Your task to perform on an android device: Go to calendar. Show me events next week Image 0: 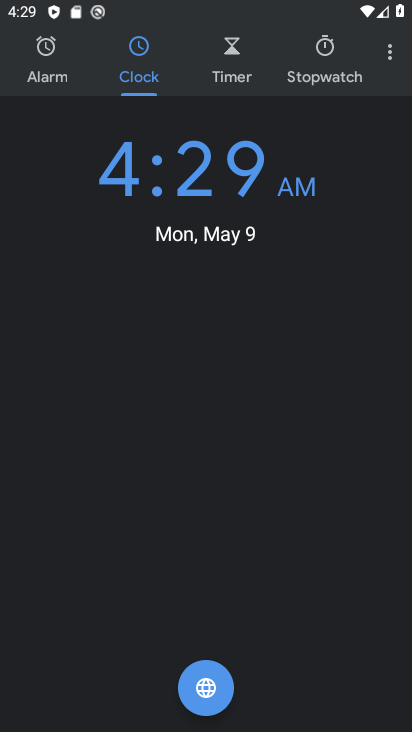
Step 0: press home button
Your task to perform on an android device: Go to calendar. Show me events next week Image 1: 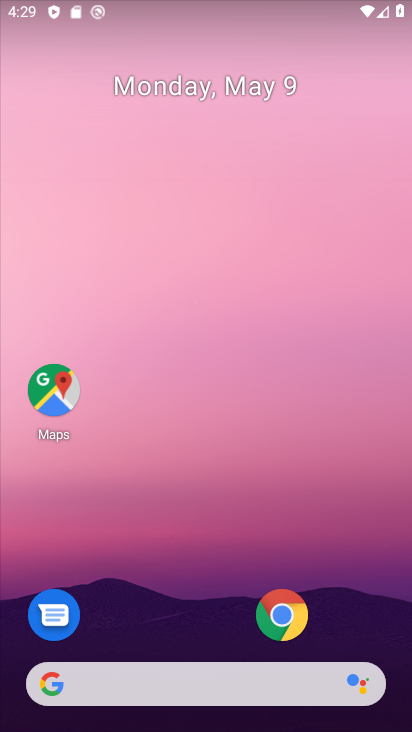
Step 1: click (283, 606)
Your task to perform on an android device: Go to calendar. Show me events next week Image 2: 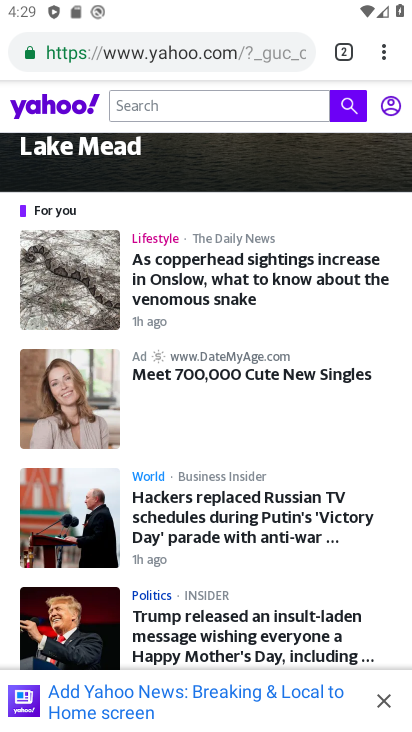
Step 2: press home button
Your task to perform on an android device: Go to calendar. Show me events next week Image 3: 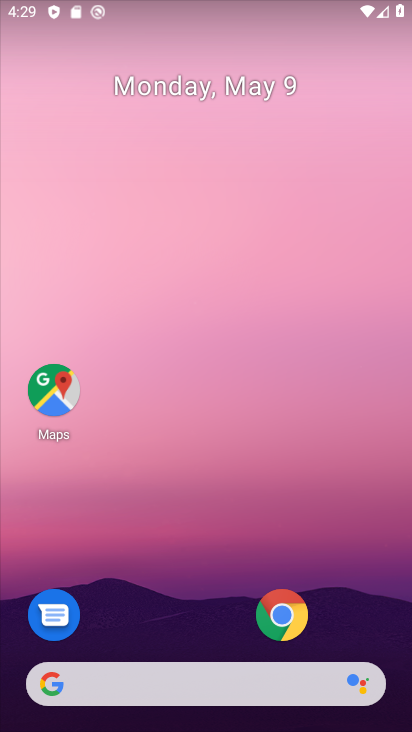
Step 3: drag from (169, 654) to (166, 329)
Your task to perform on an android device: Go to calendar. Show me events next week Image 4: 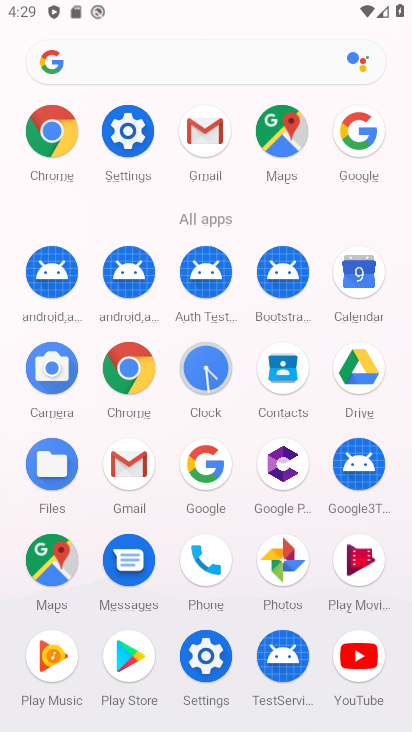
Step 4: click (353, 272)
Your task to perform on an android device: Go to calendar. Show me events next week Image 5: 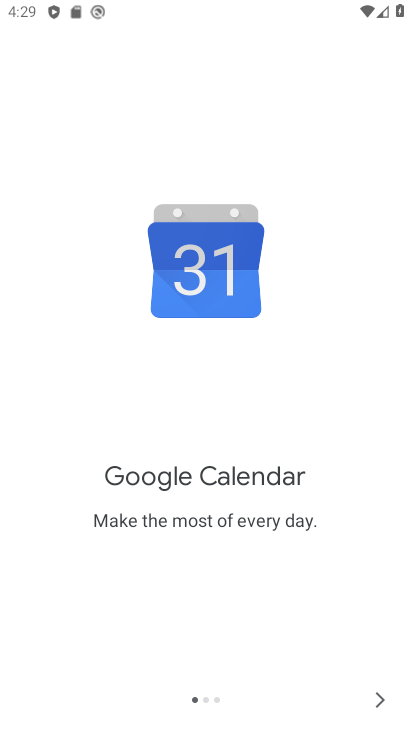
Step 5: click (369, 699)
Your task to perform on an android device: Go to calendar. Show me events next week Image 6: 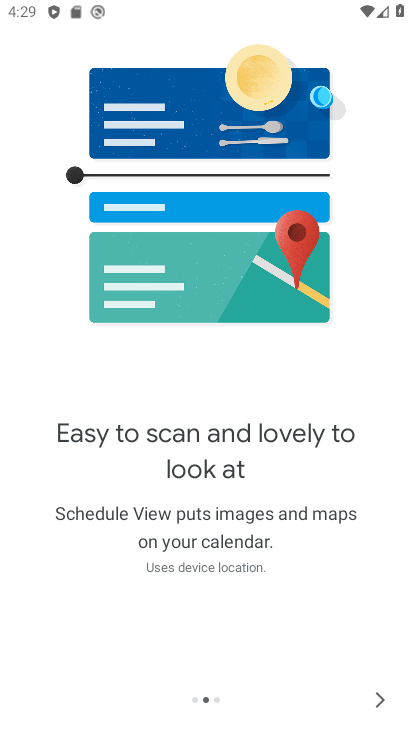
Step 6: click (369, 699)
Your task to perform on an android device: Go to calendar. Show me events next week Image 7: 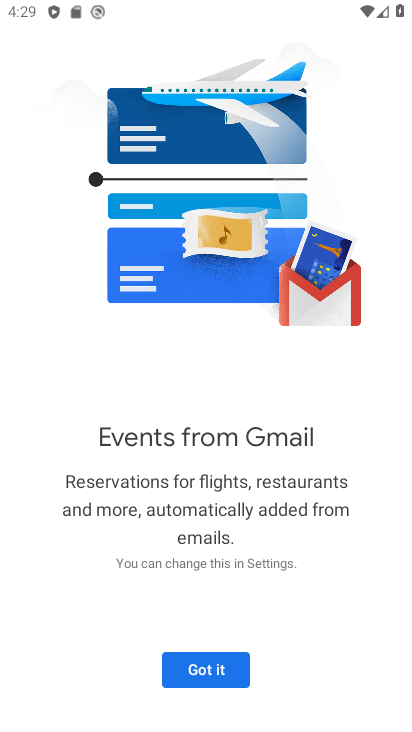
Step 7: click (232, 665)
Your task to perform on an android device: Go to calendar. Show me events next week Image 8: 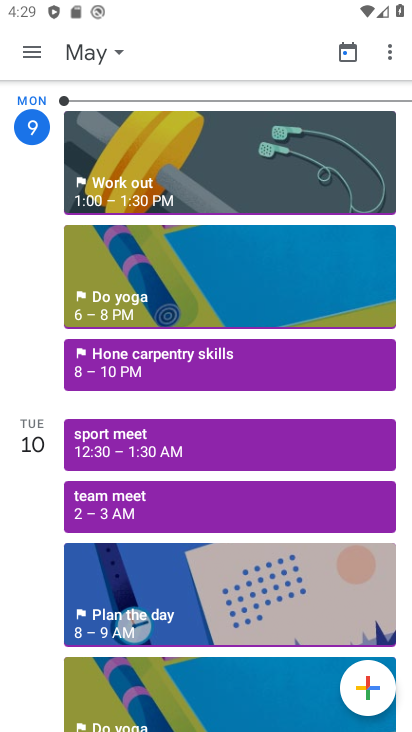
Step 8: click (79, 49)
Your task to perform on an android device: Go to calendar. Show me events next week Image 9: 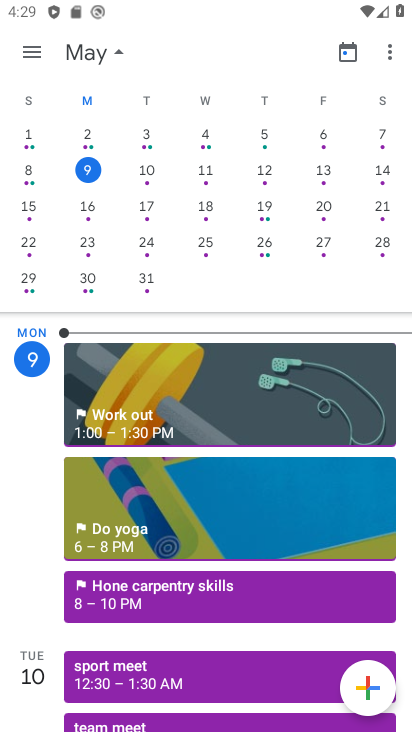
Step 9: click (147, 211)
Your task to perform on an android device: Go to calendar. Show me events next week Image 10: 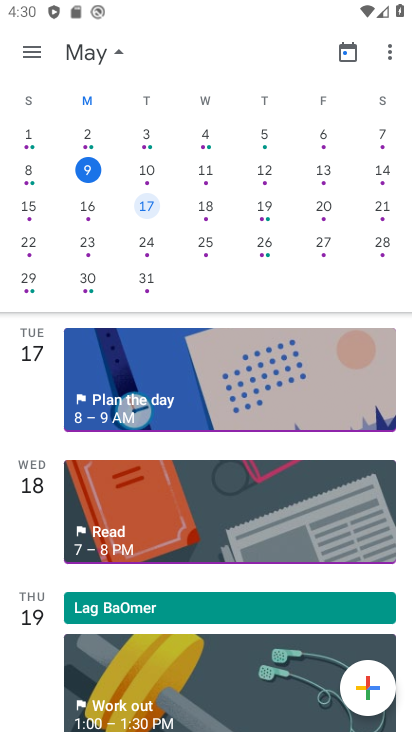
Step 10: click (108, 394)
Your task to perform on an android device: Go to calendar. Show me events next week Image 11: 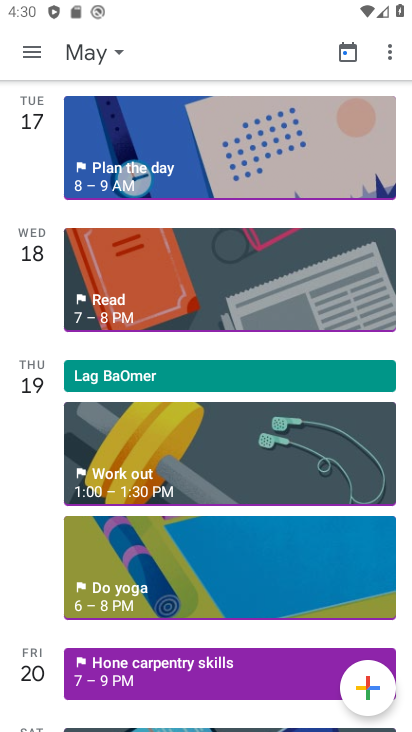
Step 11: click (156, 471)
Your task to perform on an android device: Go to calendar. Show me events next week Image 12: 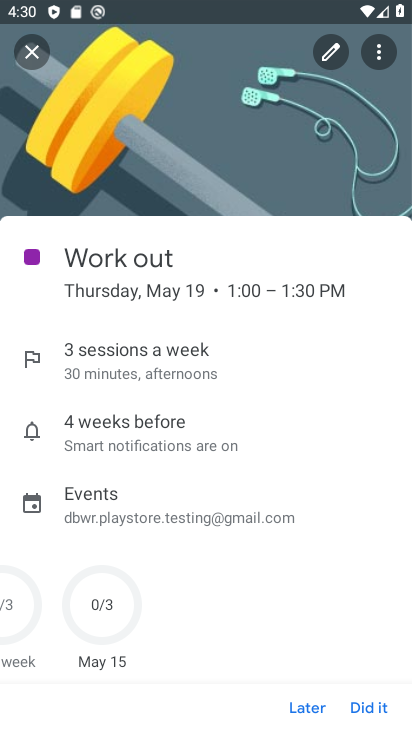
Step 12: task complete